Your task to perform on an android device: open a new tab in the chrome app Image 0: 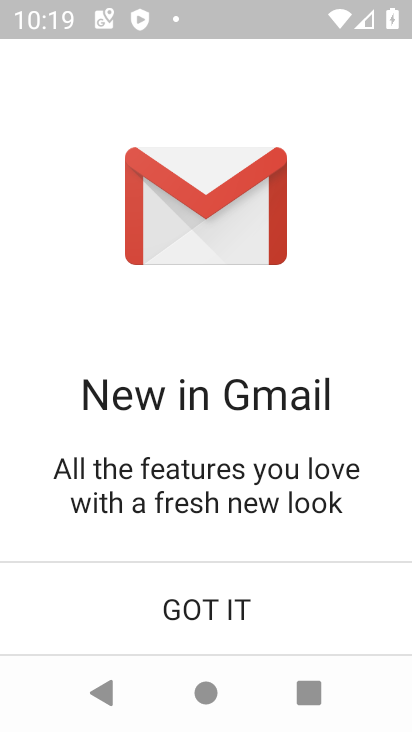
Step 0: press home button
Your task to perform on an android device: open a new tab in the chrome app Image 1: 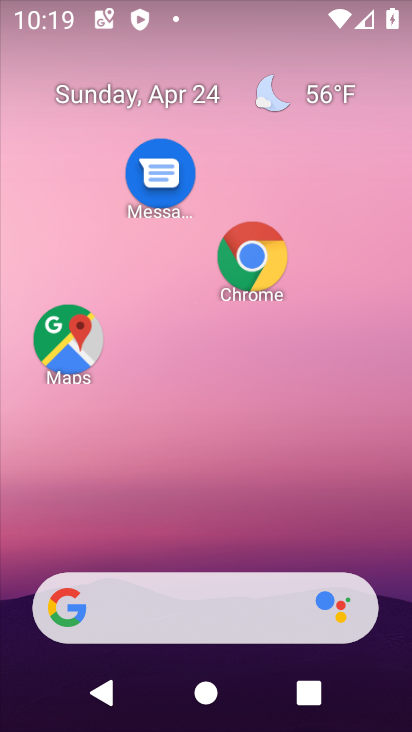
Step 1: click (253, 257)
Your task to perform on an android device: open a new tab in the chrome app Image 2: 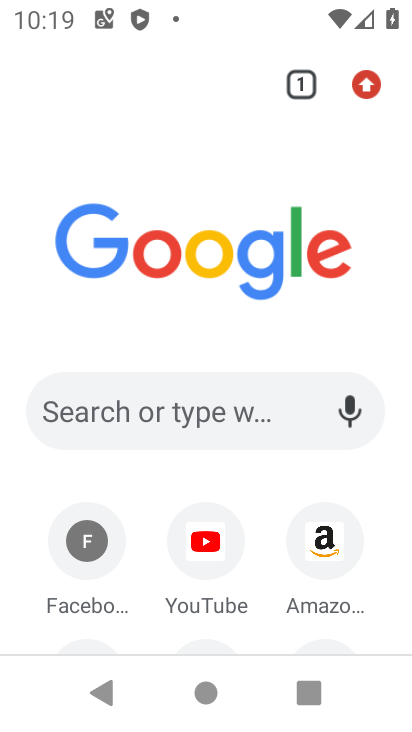
Step 2: task complete